Your task to perform on an android device: Go to sound settings Image 0: 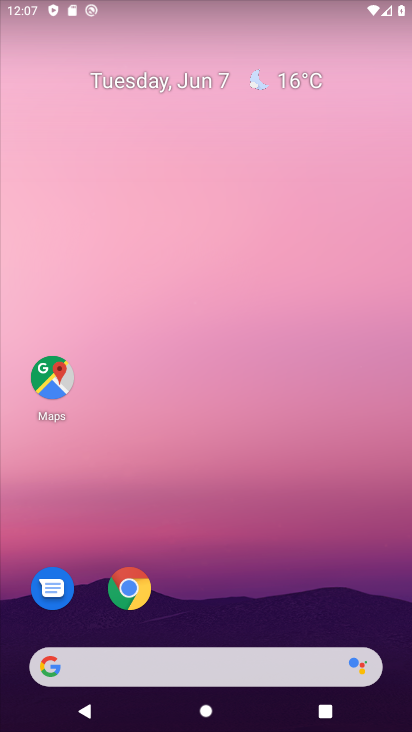
Step 0: drag from (291, 612) to (224, 63)
Your task to perform on an android device: Go to sound settings Image 1: 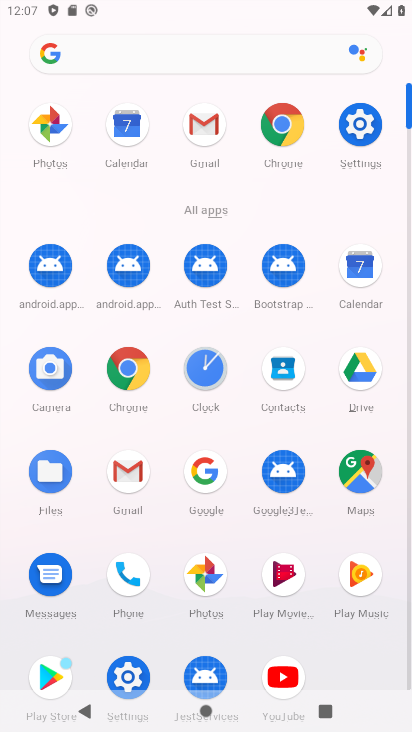
Step 1: click (355, 126)
Your task to perform on an android device: Go to sound settings Image 2: 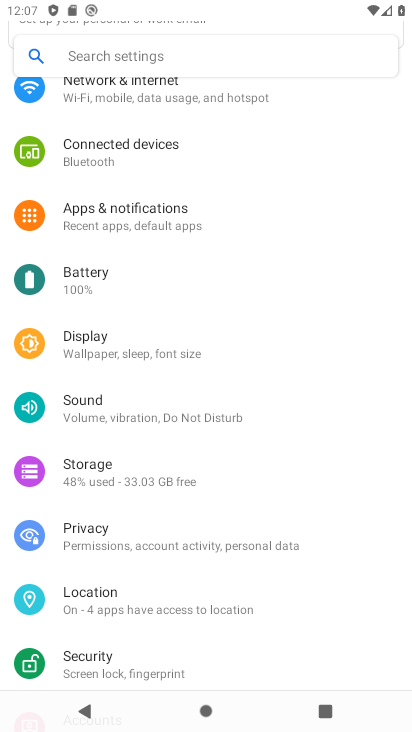
Step 2: click (282, 422)
Your task to perform on an android device: Go to sound settings Image 3: 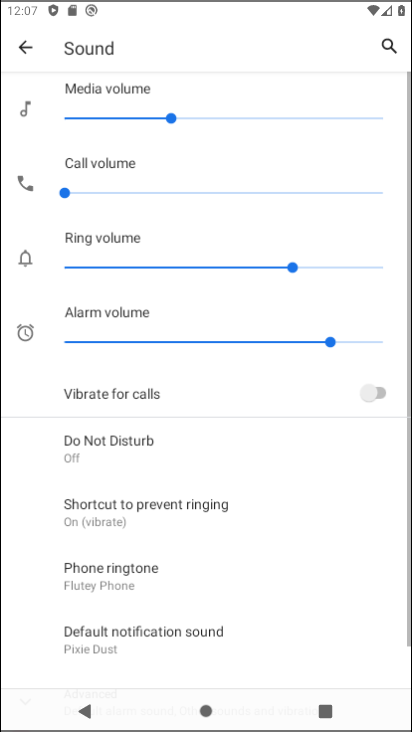
Step 3: task complete